Your task to perform on an android device: turn off data saver in the chrome app Image 0: 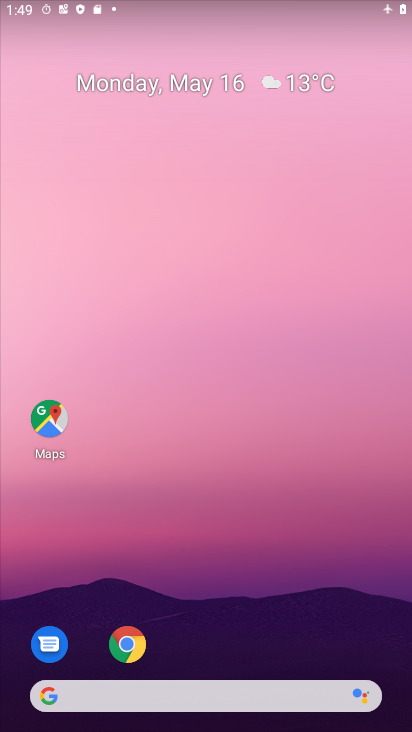
Step 0: drag from (268, 684) to (322, 246)
Your task to perform on an android device: turn off data saver in the chrome app Image 1: 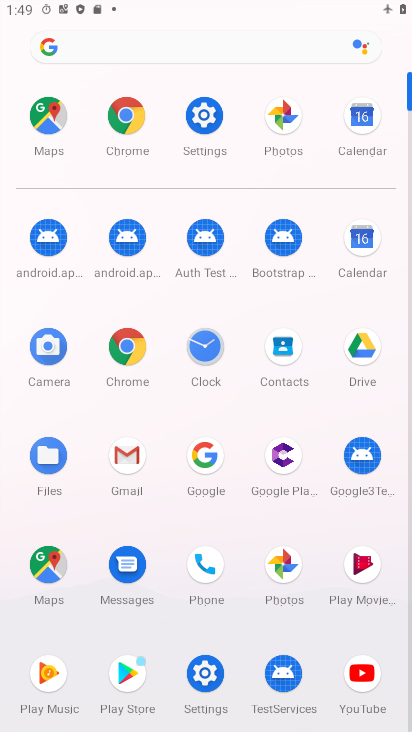
Step 1: click (131, 138)
Your task to perform on an android device: turn off data saver in the chrome app Image 2: 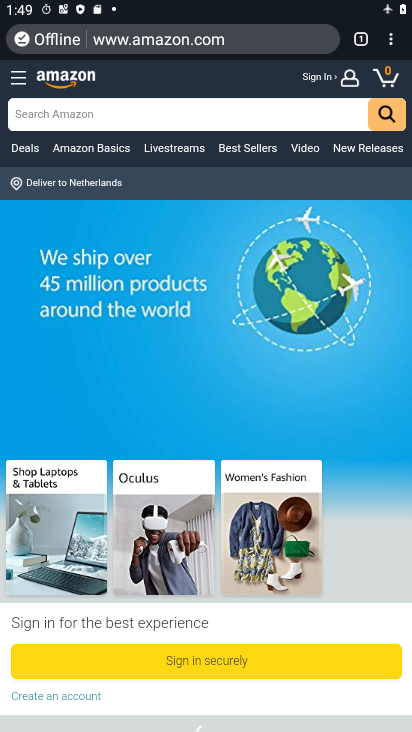
Step 2: click (393, 52)
Your task to perform on an android device: turn off data saver in the chrome app Image 3: 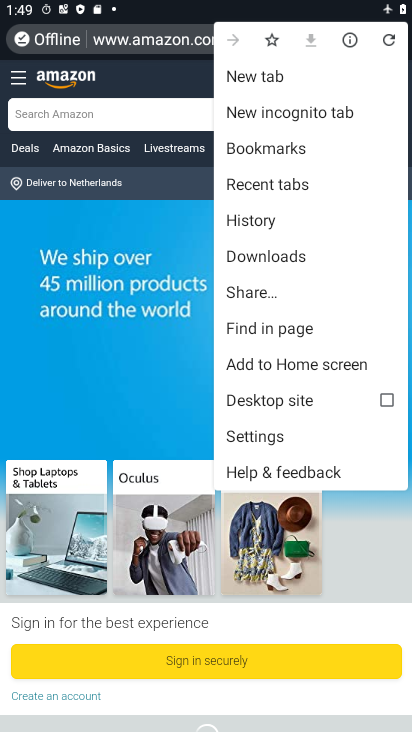
Step 3: drag from (254, 358) to (299, 104)
Your task to perform on an android device: turn off data saver in the chrome app Image 4: 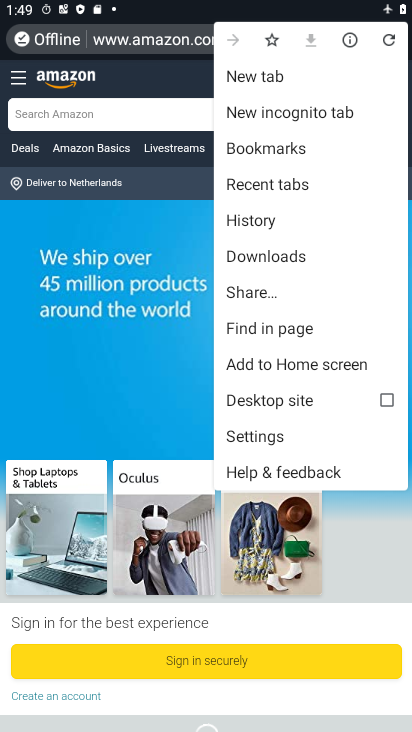
Step 4: click (323, 444)
Your task to perform on an android device: turn off data saver in the chrome app Image 5: 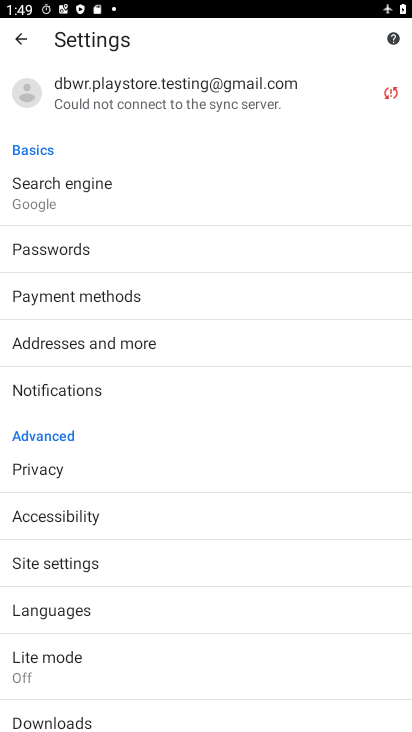
Step 5: drag from (72, 486) to (118, 146)
Your task to perform on an android device: turn off data saver in the chrome app Image 6: 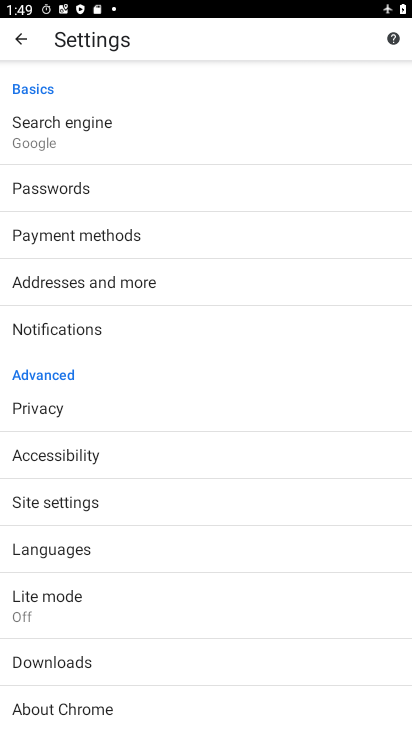
Step 6: click (103, 605)
Your task to perform on an android device: turn off data saver in the chrome app Image 7: 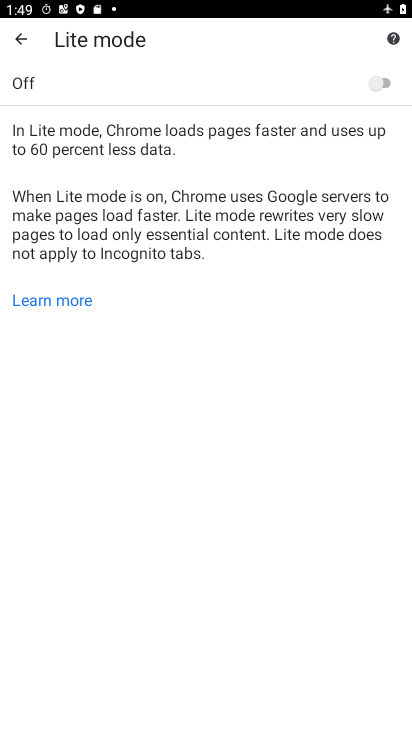
Step 7: task complete